Your task to perform on an android device: Search for pizza restaurants on Maps Image 0: 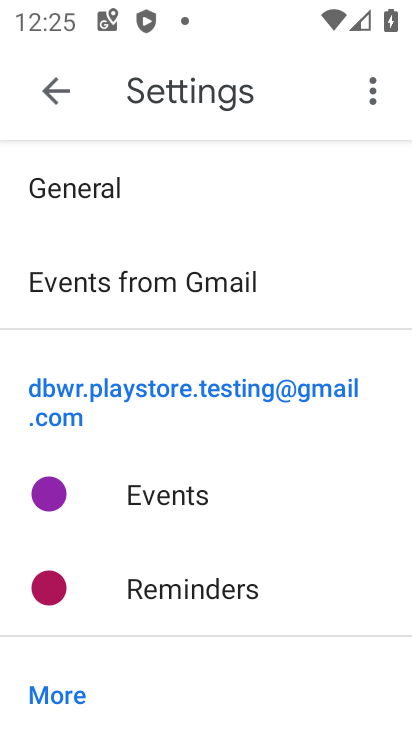
Step 0: press back button
Your task to perform on an android device: Search for pizza restaurants on Maps Image 1: 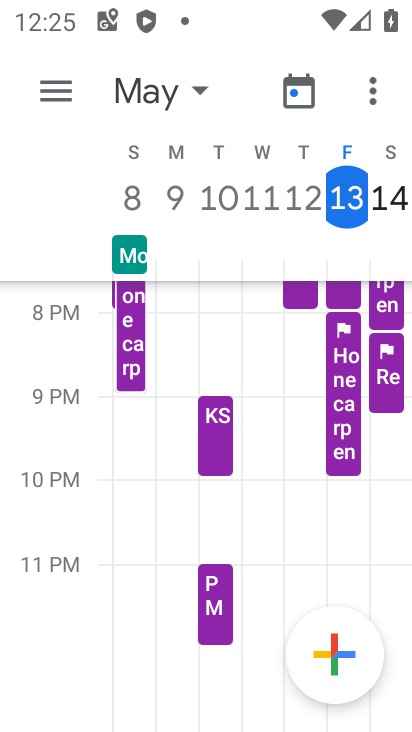
Step 1: press home button
Your task to perform on an android device: Search for pizza restaurants on Maps Image 2: 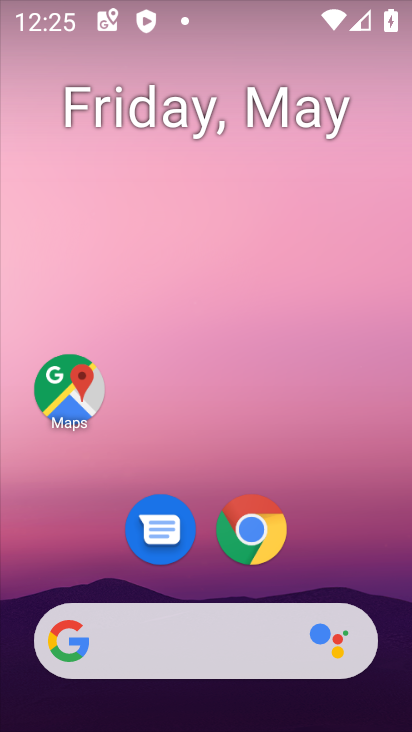
Step 2: click (57, 388)
Your task to perform on an android device: Search for pizza restaurants on Maps Image 3: 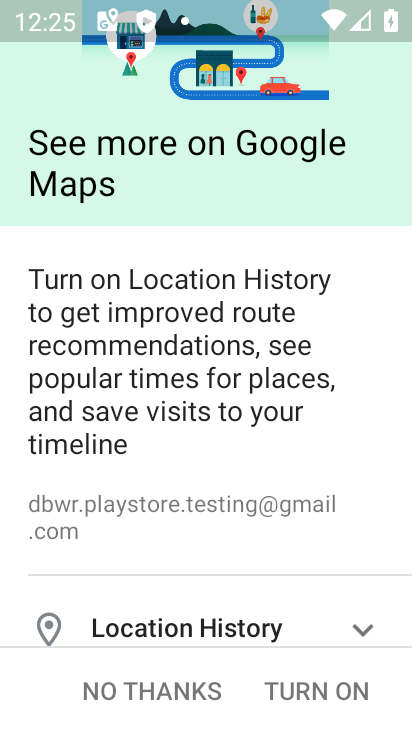
Step 3: press back button
Your task to perform on an android device: Search for pizza restaurants on Maps Image 4: 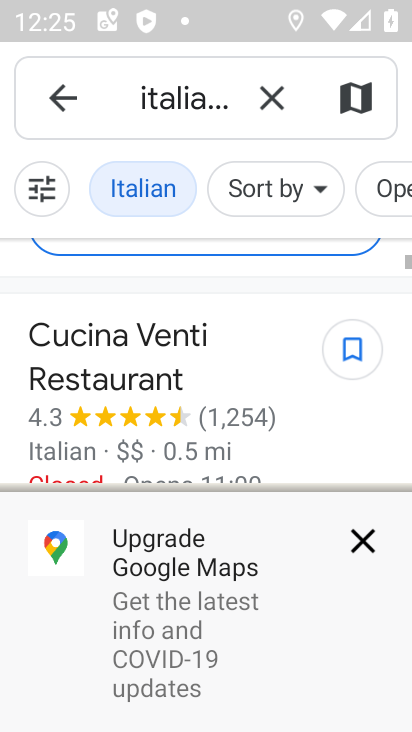
Step 4: click (270, 86)
Your task to perform on an android device: Search for pizza restaurants on Maps Image 5: 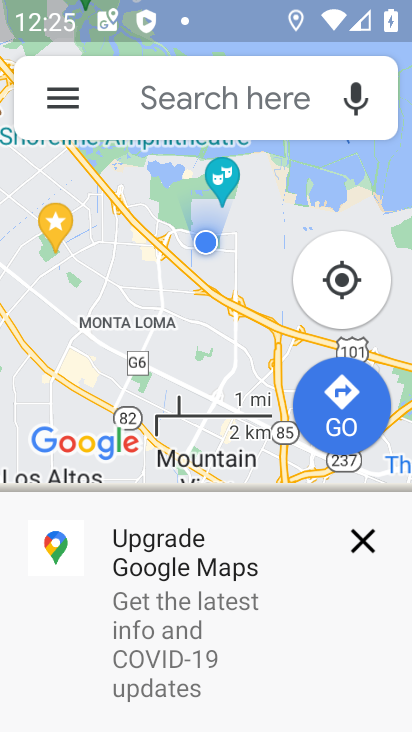
Step 5: click (187, 112)
Your task to perform on an android device: Search for pizza restaurants on Maps Image 6: 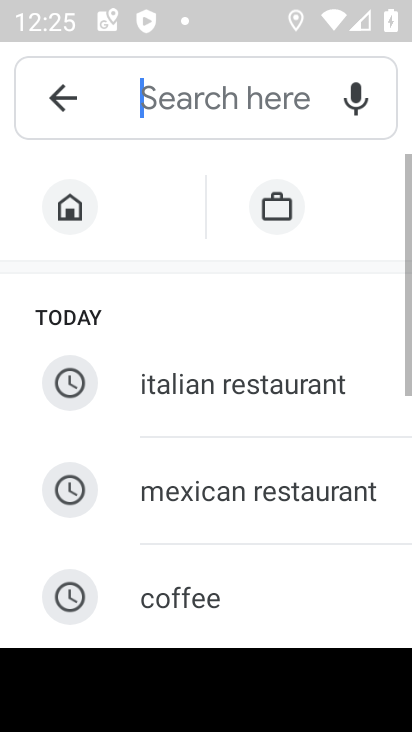
Step 6: drag from (199, 534) to (209, 339)
Your task to perform on an android device: Search for pizza restaurants on Maps Image 7: 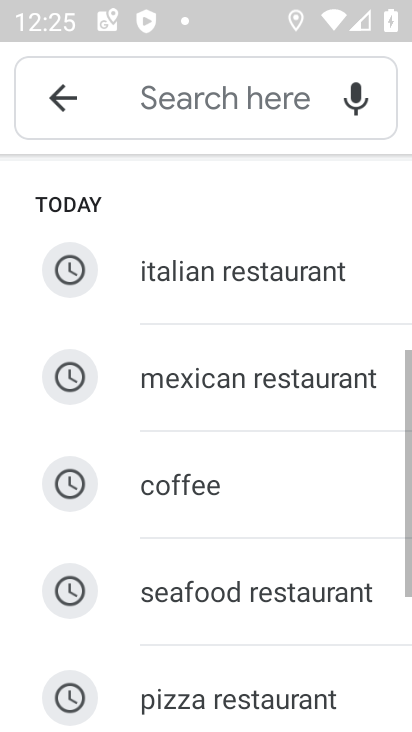
Step 7: drag from (209, 292) to (205, 185)
Your task to perform on an android device: Search for pizza restaurants on Maps Image 8: 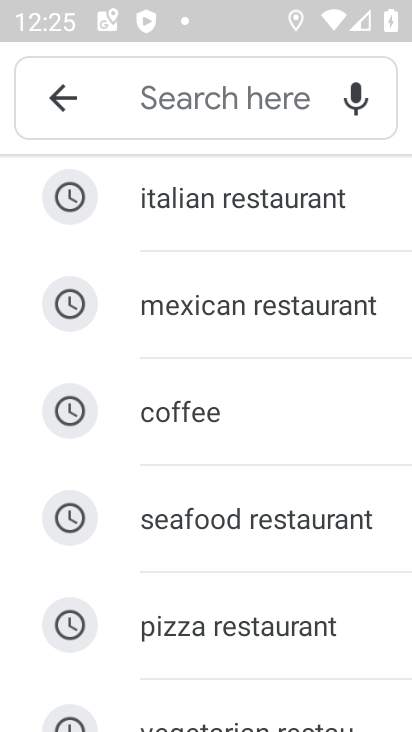
Step 8: click (178, 638)
Your task to perform on an android device: Search for pizza restaurants on Maps Image 9: 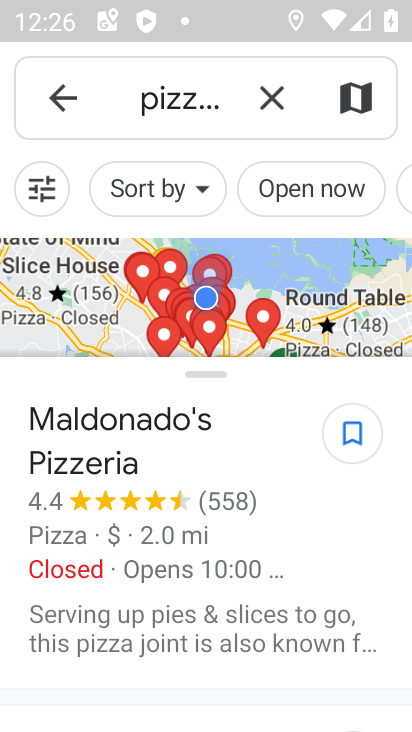
Step 9: task complete